Your task to perform on an android device: Search for sushi restaurants on Maps Image 0: 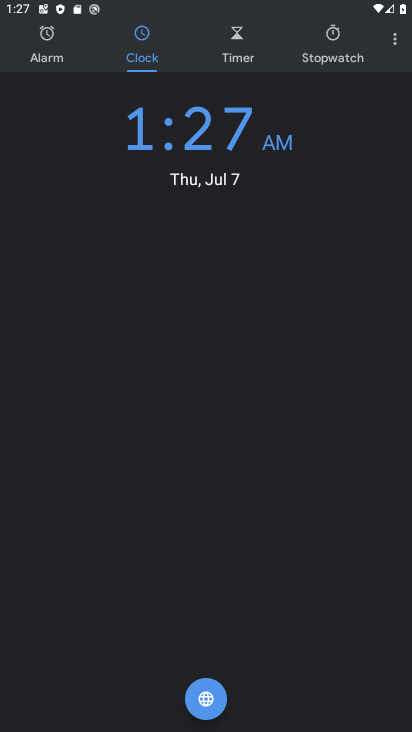
Step 0: press home button
Your task to perform on an android device: Search for sushi restaurants on Maps Image 1: 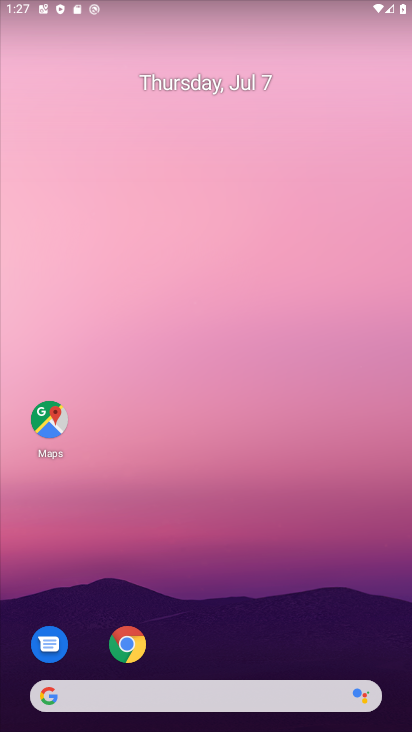
Step 1: drag from (235, 633) to (255, 70)
Your task to perform on an android device: Search for sushi restaurants on Maps Image 2: 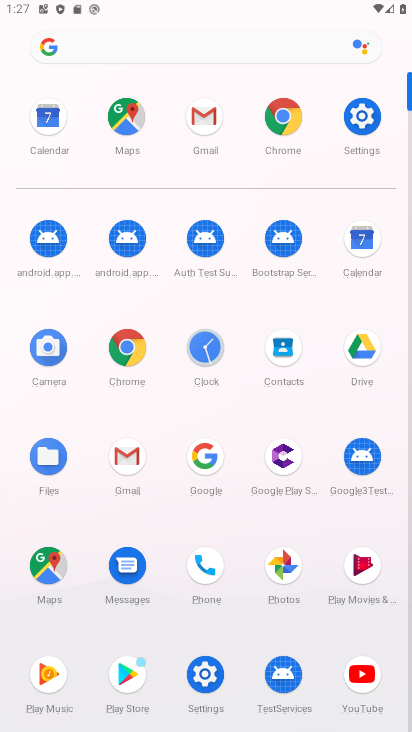
Step 2: click (134, 360)
Your task to perform on an android device: Search for sushi restaurants on Maps Image 3: 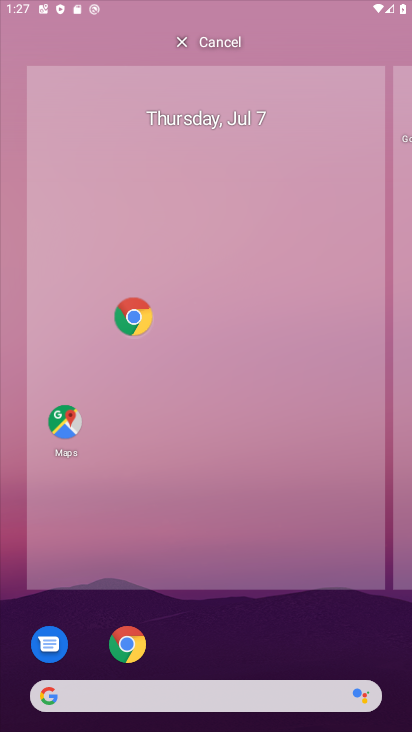
Step 3: click (126, 131)
Your task to perform on an android device: Search for sushi restaurants on Maps Image 4: 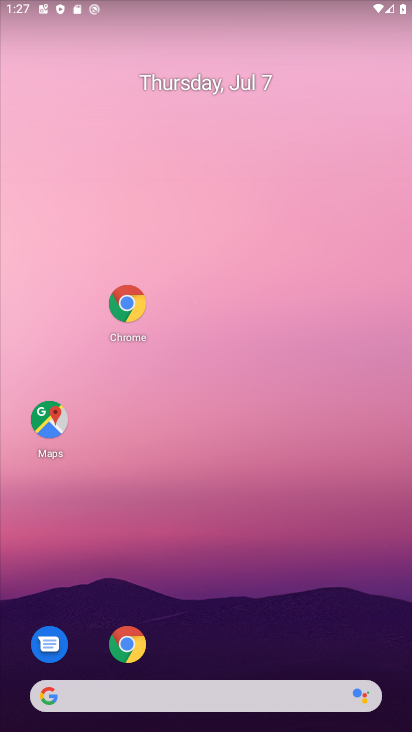
Step 4: click (69, 432)
Your task to perform on an android device: Search for sushi restaurants on Maps Image 5: 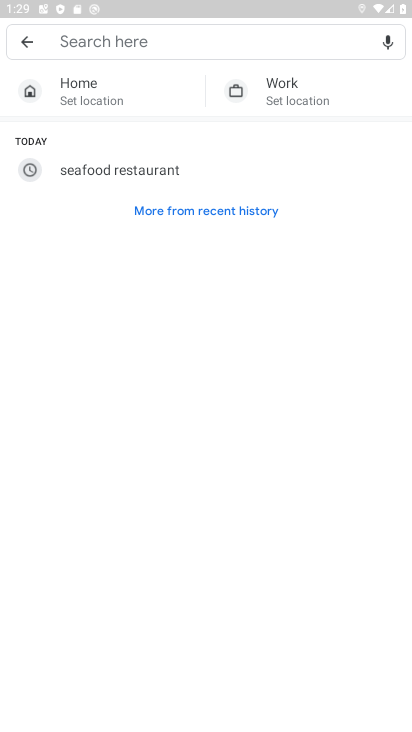
Step 5: click (173, 179)
Your task to perform on an android device: Search for sushi restaurants on Maps Image 6: 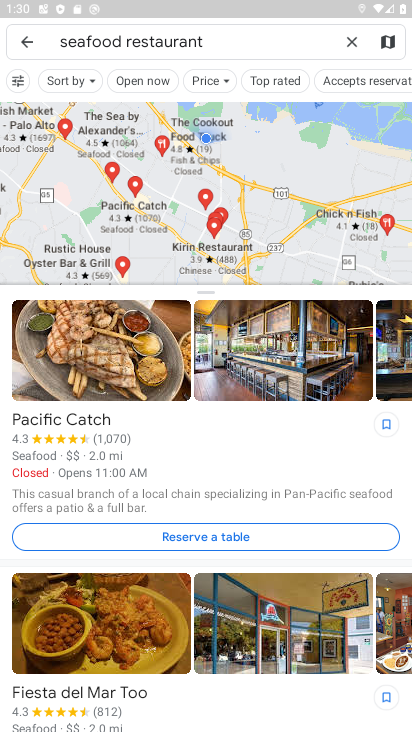
Step 6: task complete